Your task to perform on an android device: Open the Google play store app Image 0: 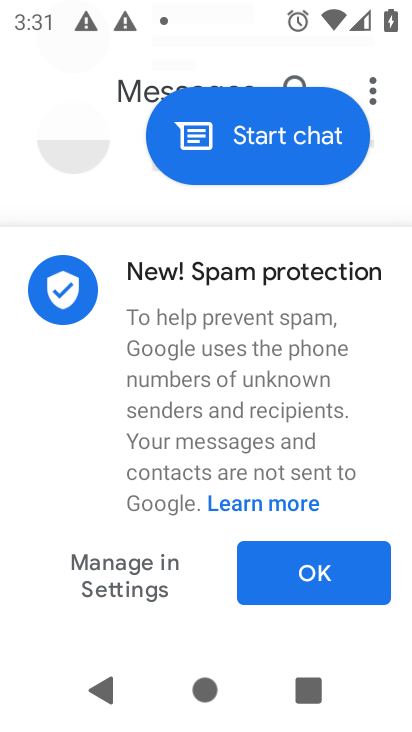
Step 0: press home button
Your task to perform on an android device: Open the Google play store app Image 1: 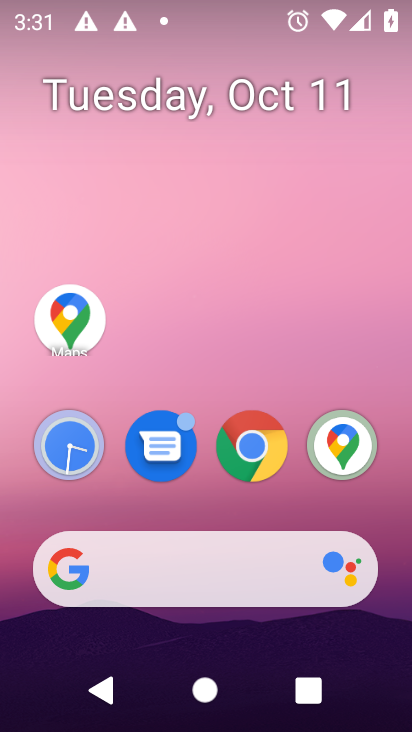
Step 1: drag from (292, 514) to (309, 31)
Your task to perform on an android device: Open the Google play store app Image 2: 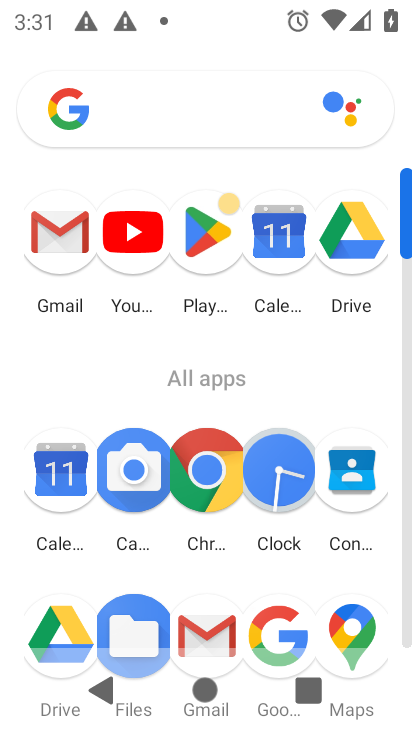
Step 2: click (210, 252)
Your task to perform on an android device: Open the Google play store app Image 3: 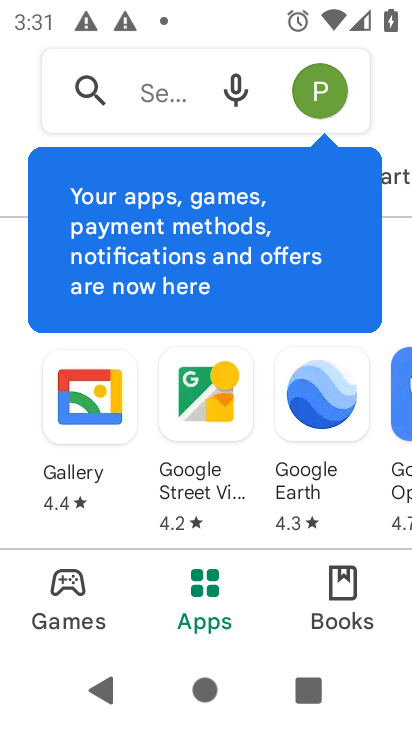
Step 3: task complete